Your task to perform on an android device: Clear the cart on costco.com. Image 0: 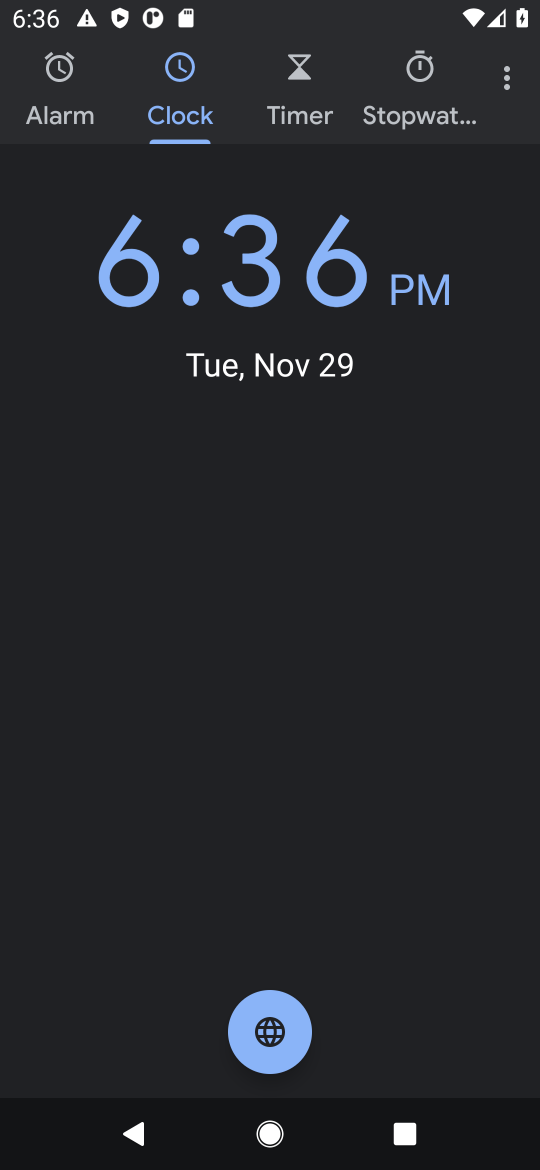
Step 0: task complete